Your task to perform on an android device: turn notification dots on Image 0: 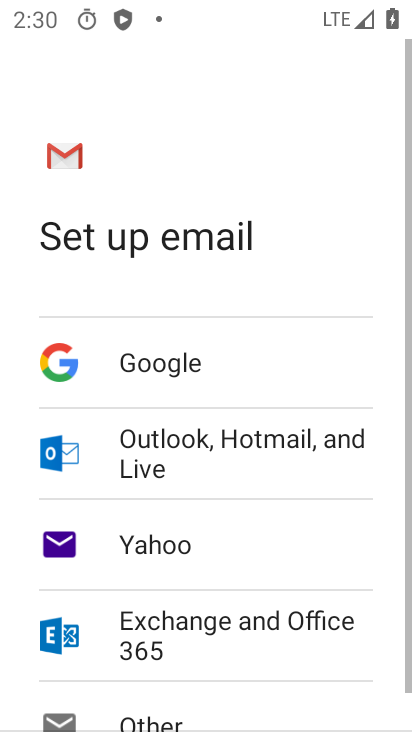
Step 0: press home button
Your task to perform on an android device: turn notification dots on Image 1: 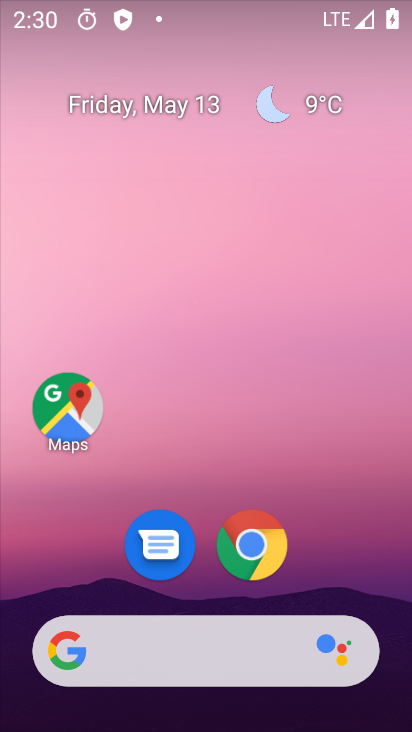
Step 1: drag from (337, 555) to (327, 170)
Your task to perform on an android device: turn notification dots on Image 2: 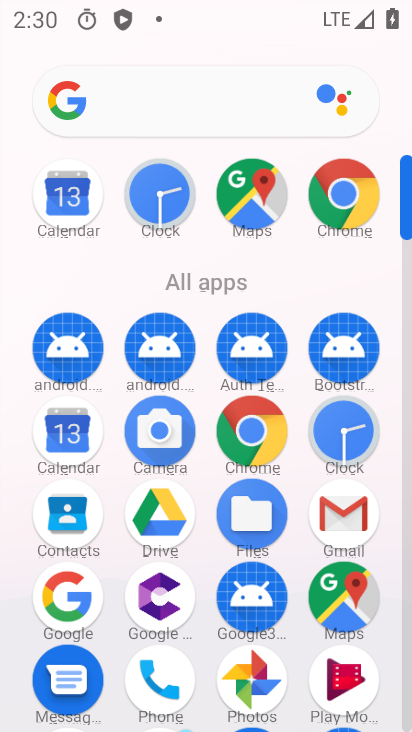
Step 2: drag from (290, 323) to (288, 114)
Your task to perform on an android device: turn notification dots on Image 3: 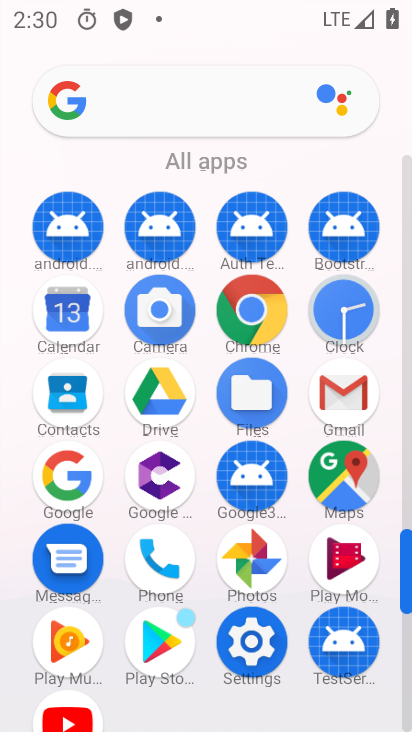
Step 3: click (254, 649)
Your task to perform on an android device: turn notification dots on Image 4: 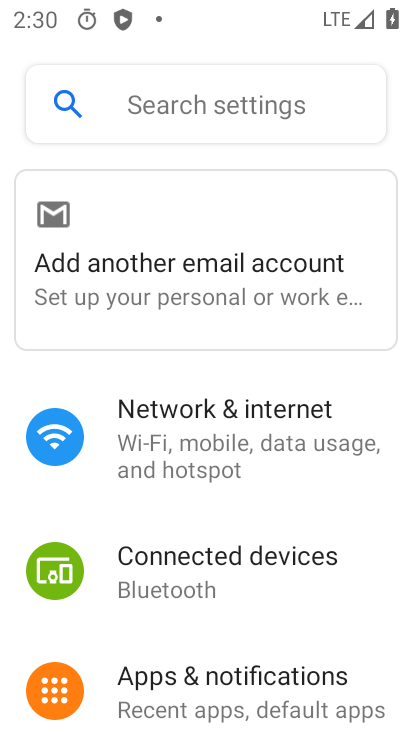
Step 4: click (268, 689)
Your task to perform on an android device: turn notification dots on Image 5: 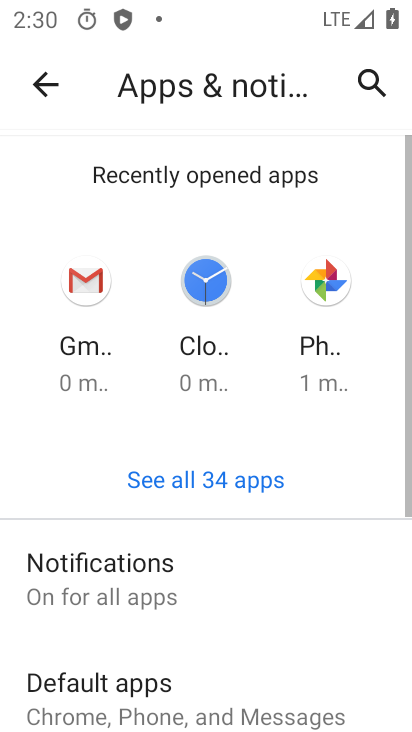
Step 5: click (122, 584)
Your task to perform on an android device: turn notification dots on Image 6: 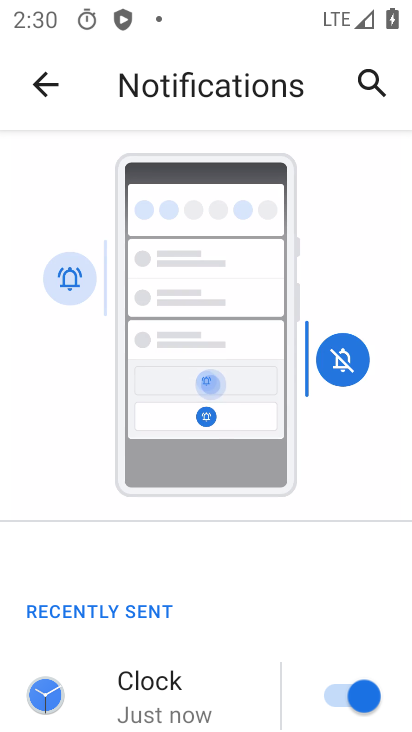
Step 6: drag from (284, 573) to (292, 229)
Your task to perform on an android device: turn notification dots on Image 7: 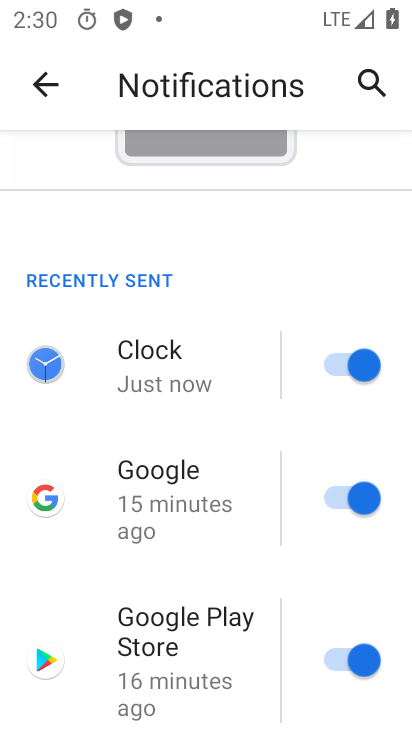
Step 7: drag from (282, 611) to (273, 244)
Your task to perform on an android device: turn notification dots on Image 8: 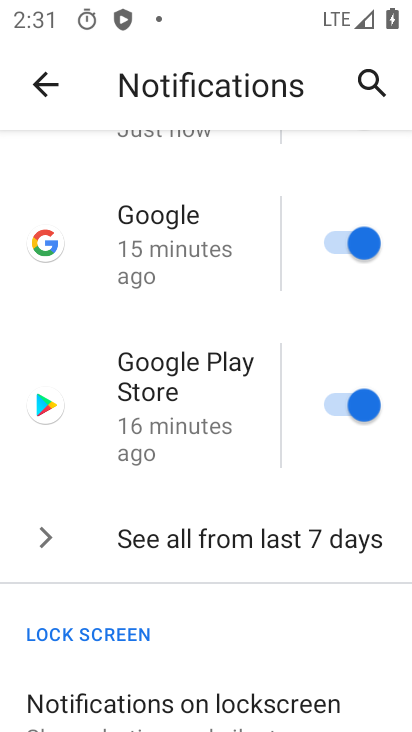
Step 8: drag from (270, 684) to (242, 295)
Your task to perform on an android device: turn notification dots on Image 9: 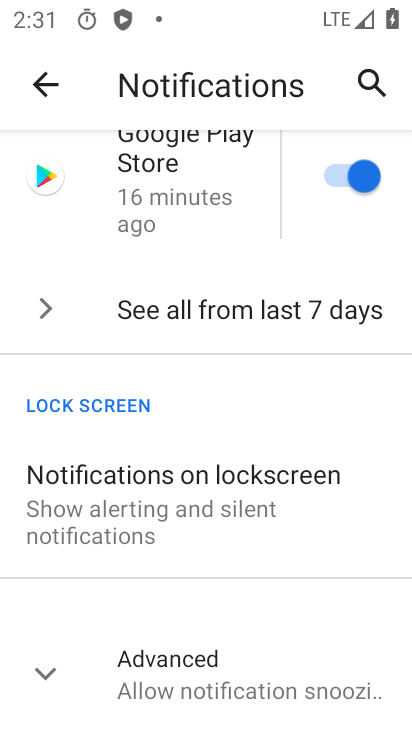
Step 9: click (201, 678)
Your task to perform on an android device: turn notification dots on Image 10: 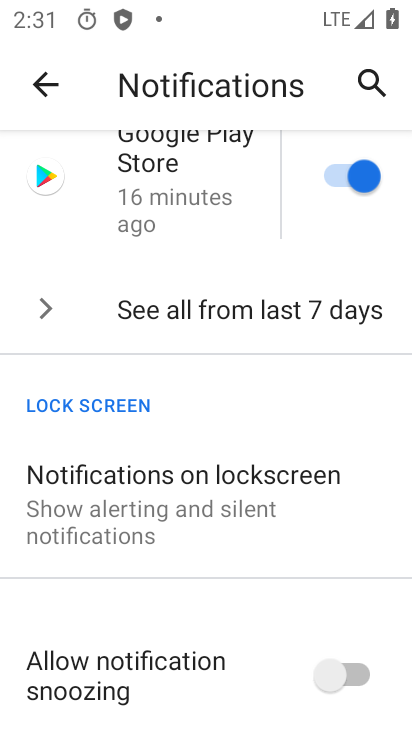
Step 10: task complete